Your task to perform on an android device: open app "ColorNote Notepad Notes" (install if not already installed) and enter user name: "unbridled@gmail.com" and password: "regularly" Image 0: 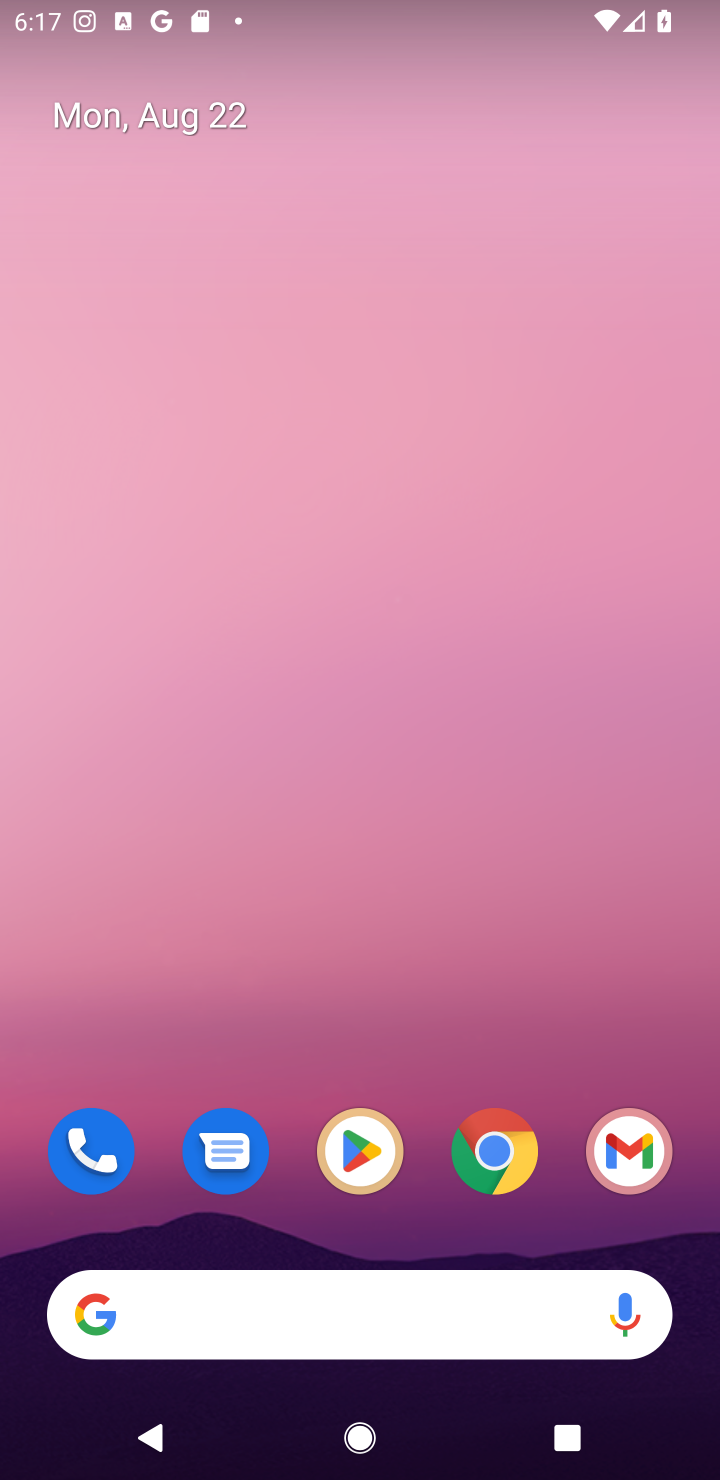
Step 0: click (356, 1152)
Your task to perform on an android device: open app "ColorNote Notepad Notes" (install if not already installed) and enter user name: "unbridled@gmail.com" and password: "regularly" Image 1: 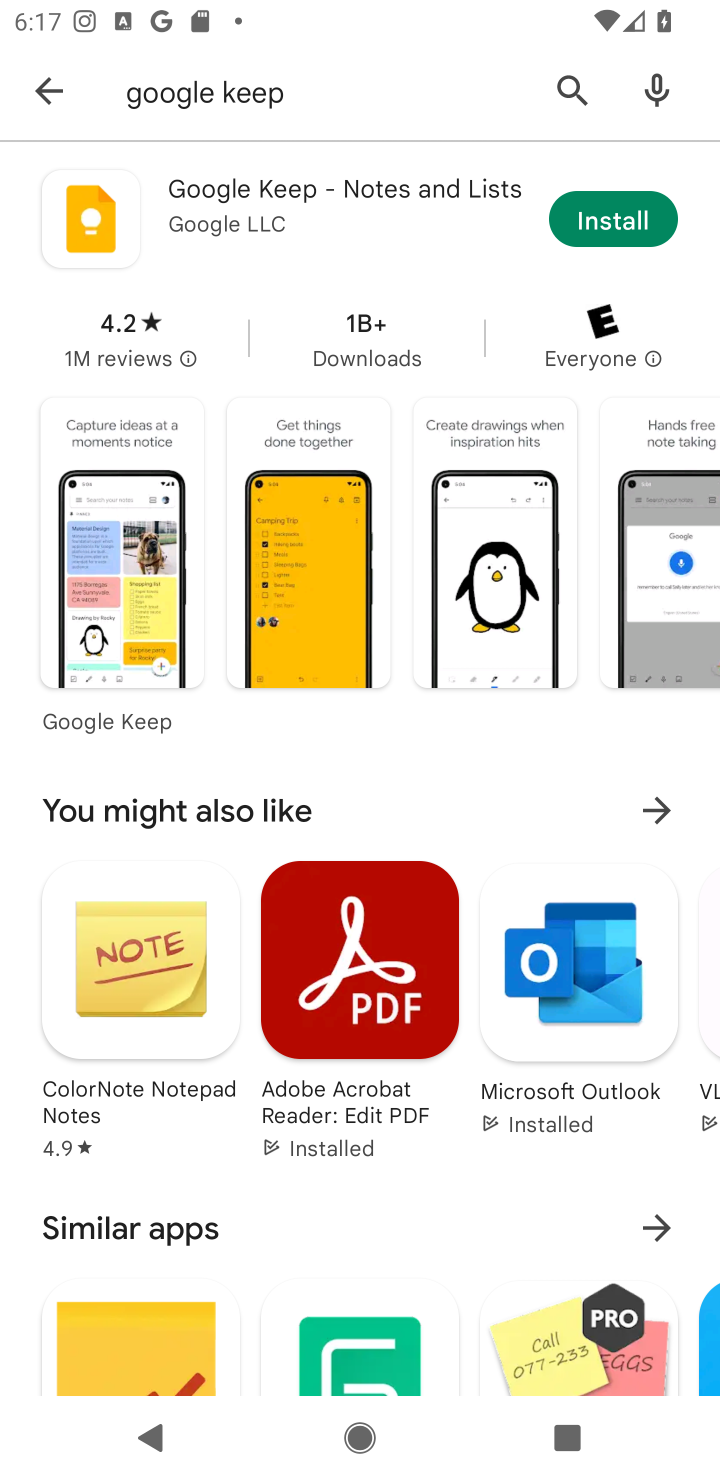
Step 1: click (564, 80)
Your task to perform on an android device: open app "ColorNote Notepad Notes" (install if not already installed) and enter user name: "unbridled@gmail.com" and password: "regularly" Image 2: 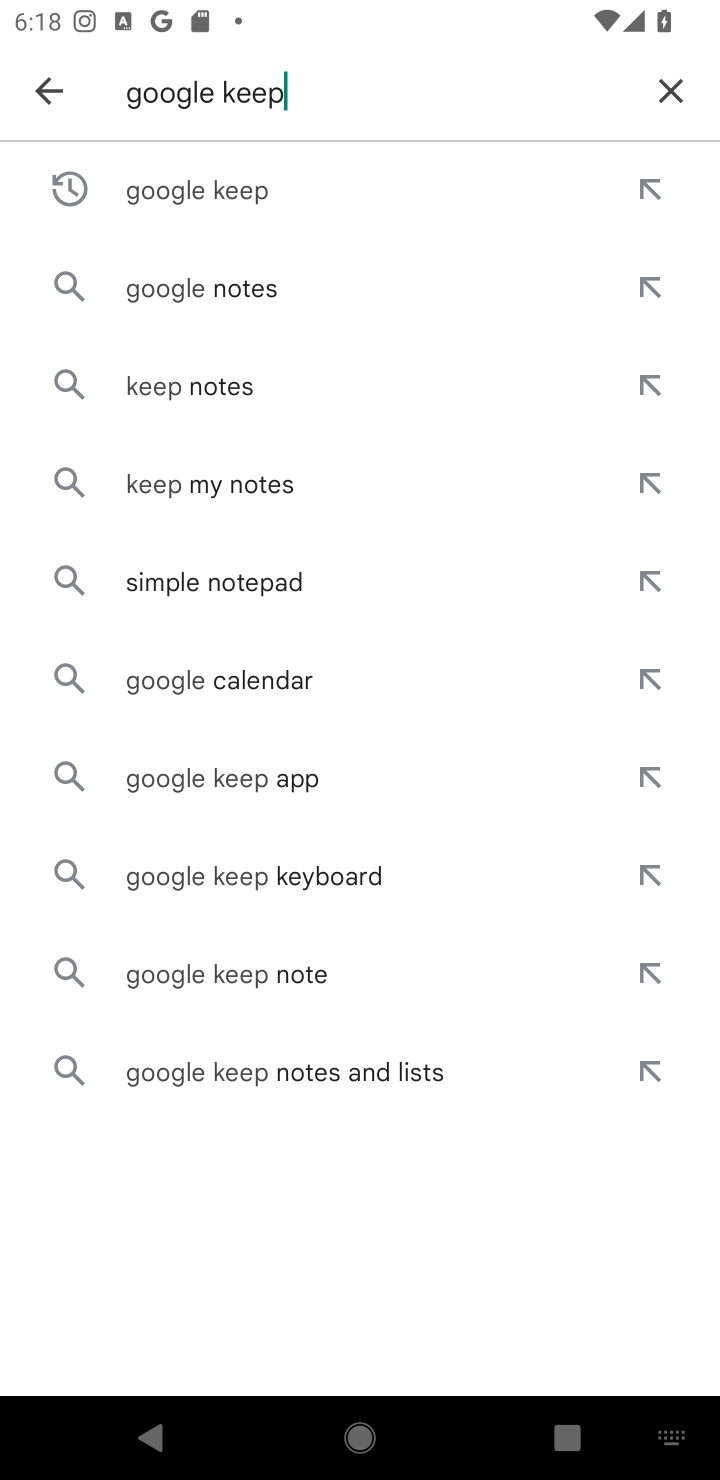
Step 2: click (677, 99)
Your task to perform on an android device: open app "ColorNote Notepad Notes" (install if not already installed) and enter user name: "unbridled@gmail.com" and password: "regularly" Image 3: 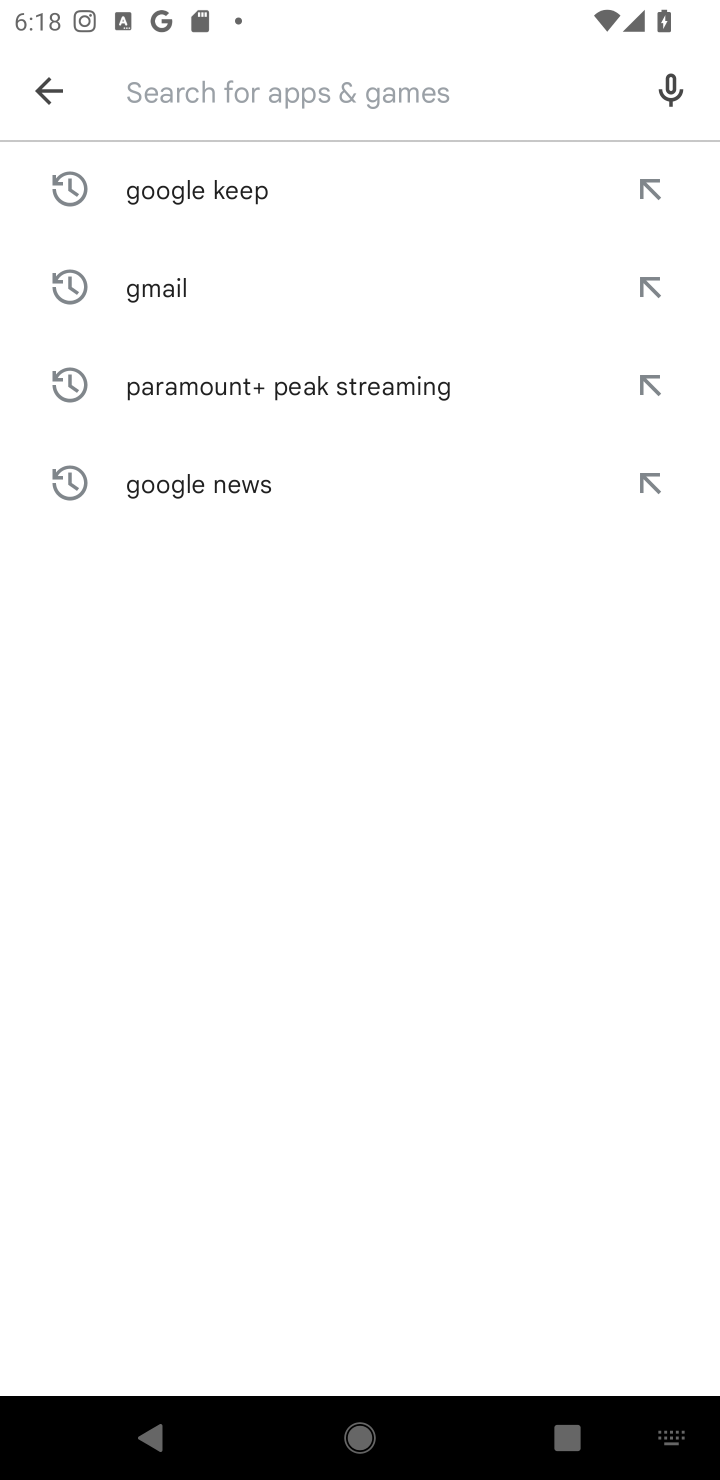
Step 3: type "ColorNote Notepad Notes"
Your task to perform on an android device: open app "ColorNote Notepad Notes" (install if not already installed) and enter user name: "unbridled@gmail.com" and password: "regularly" Image 4: 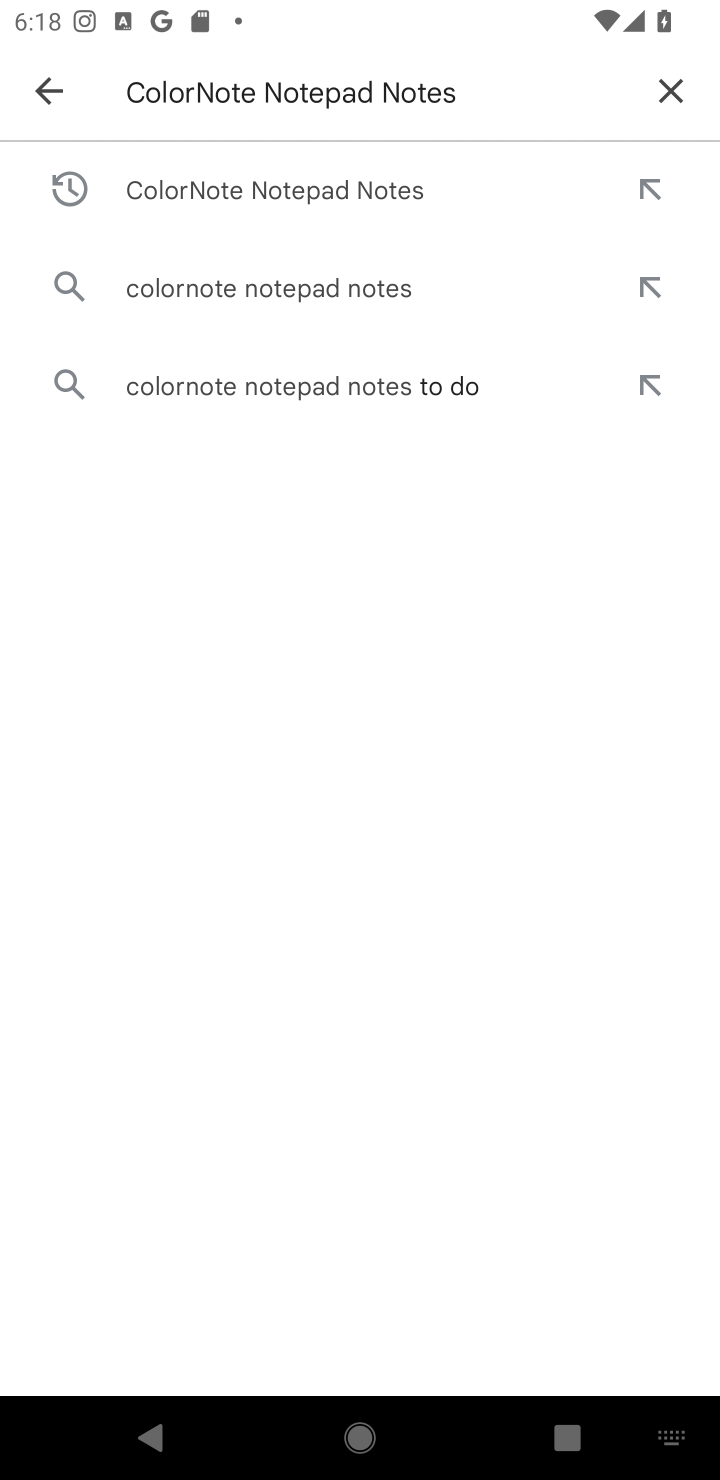
Step 4: click (340, 172)
Your task to perform on an android device: open app "ColorNote Notepad Notes" (install if not already installed) and enter user name: "unbridled@gmail.com" and password: "regularly" Image 5: 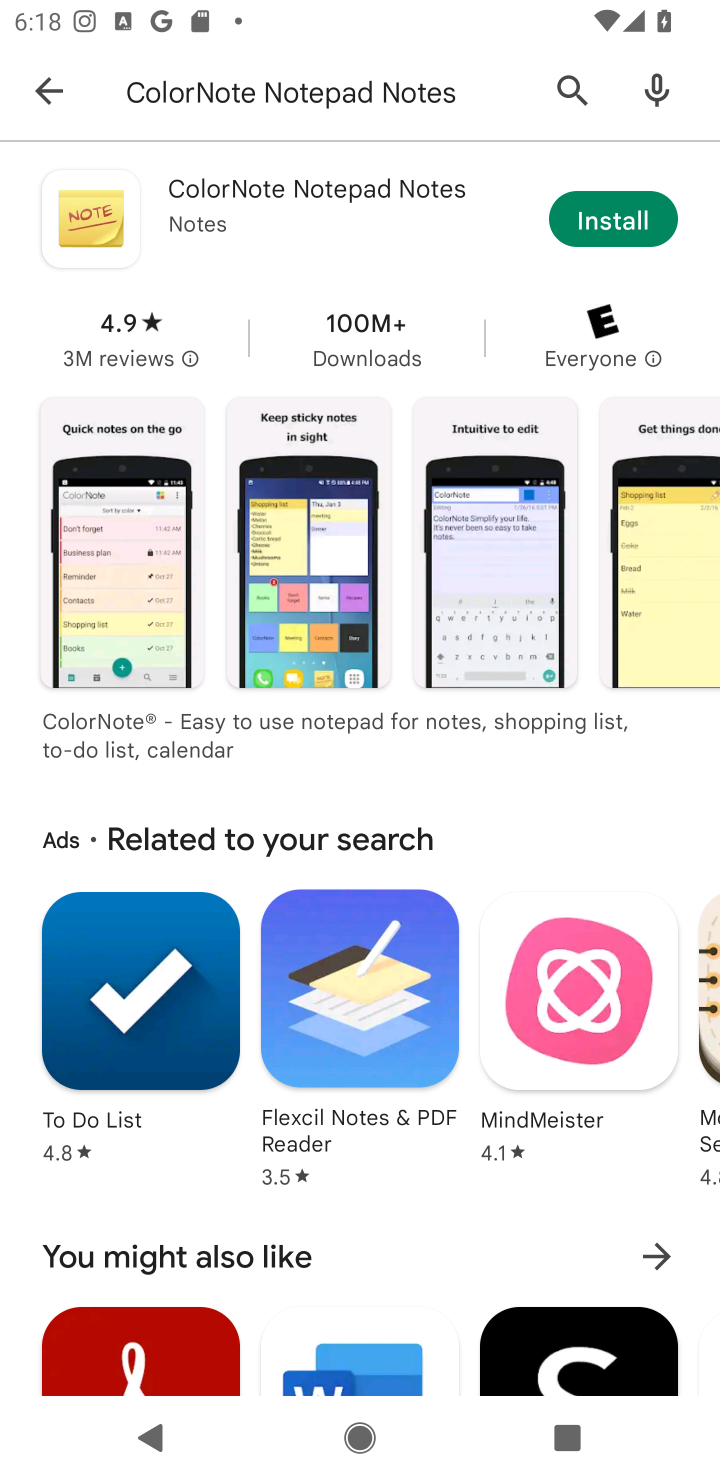
Step 5: click (590, 223)
Your task to perform on an android device: open app "ColorNote Notepad Notes" (install if not already installed) and enter user name: "unbridled@gmail.com" and password: "regularly" Image 6: 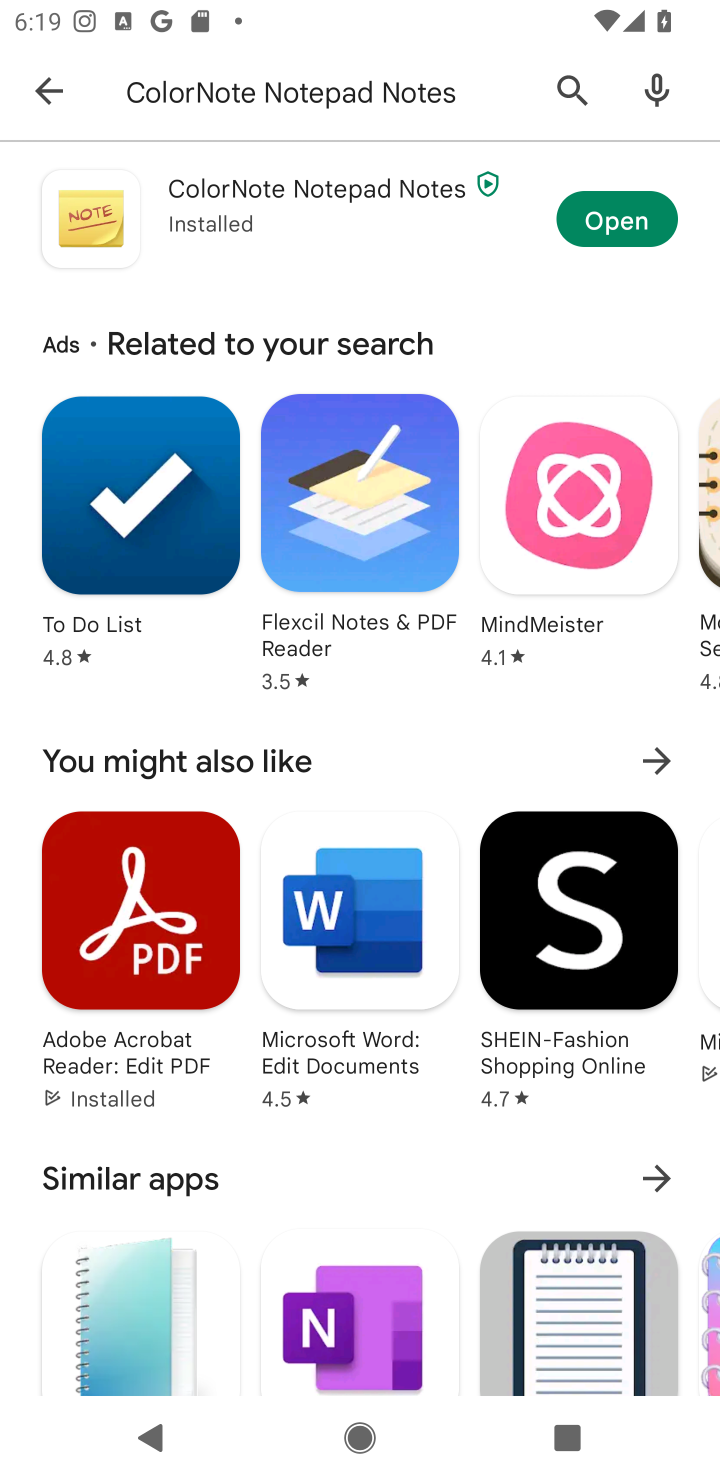
Step 6: click (637, 231)
Your task to perform on an android device: open app "ColorNote Notepad Notes" (install if not already installed) and enter user name: "unbridled@gmail.com" and password: "regularly" Image 7: 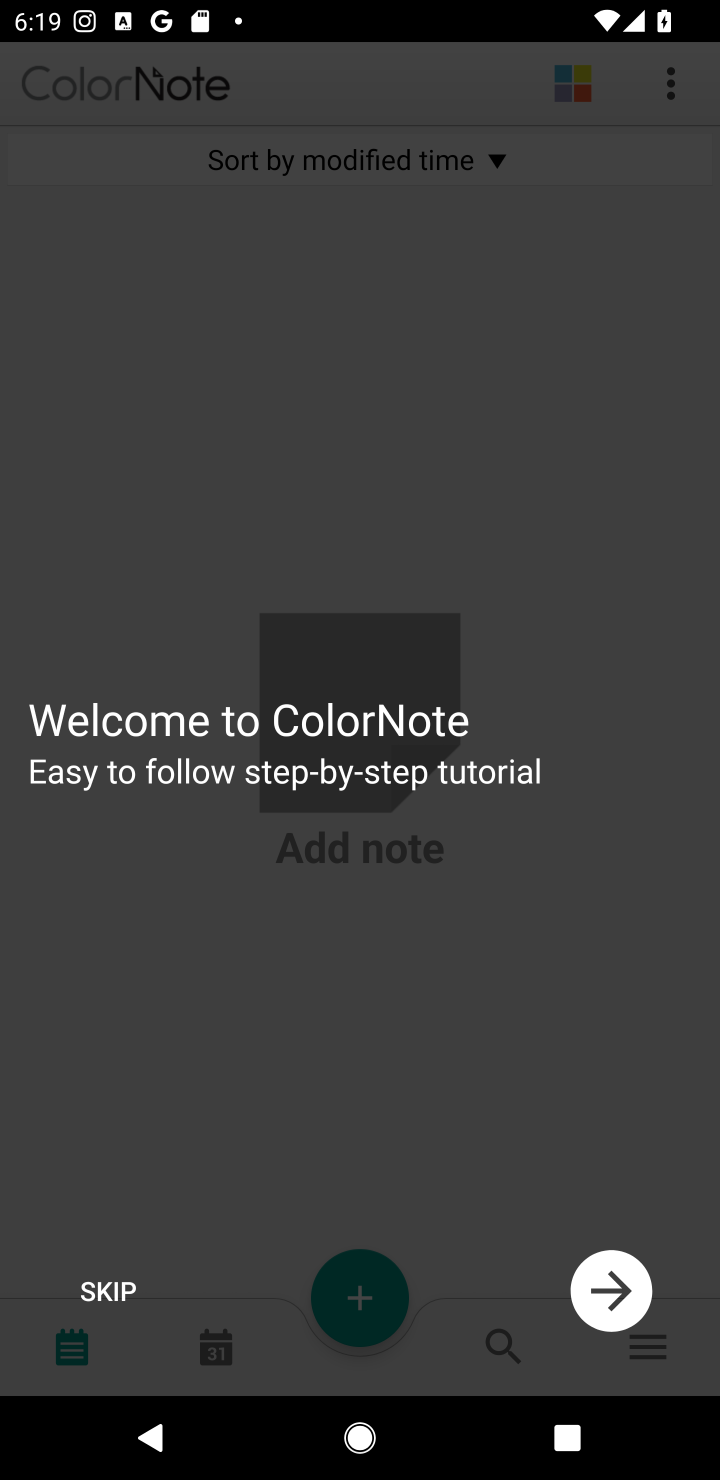
Step 7: click (619, 1272)
Your task to perform on an android device: open app "ColorNote Notepad Notes" (install if not already installed) and enter user name: "unbridled@gmail.com" and password: "regularly" Image 8: 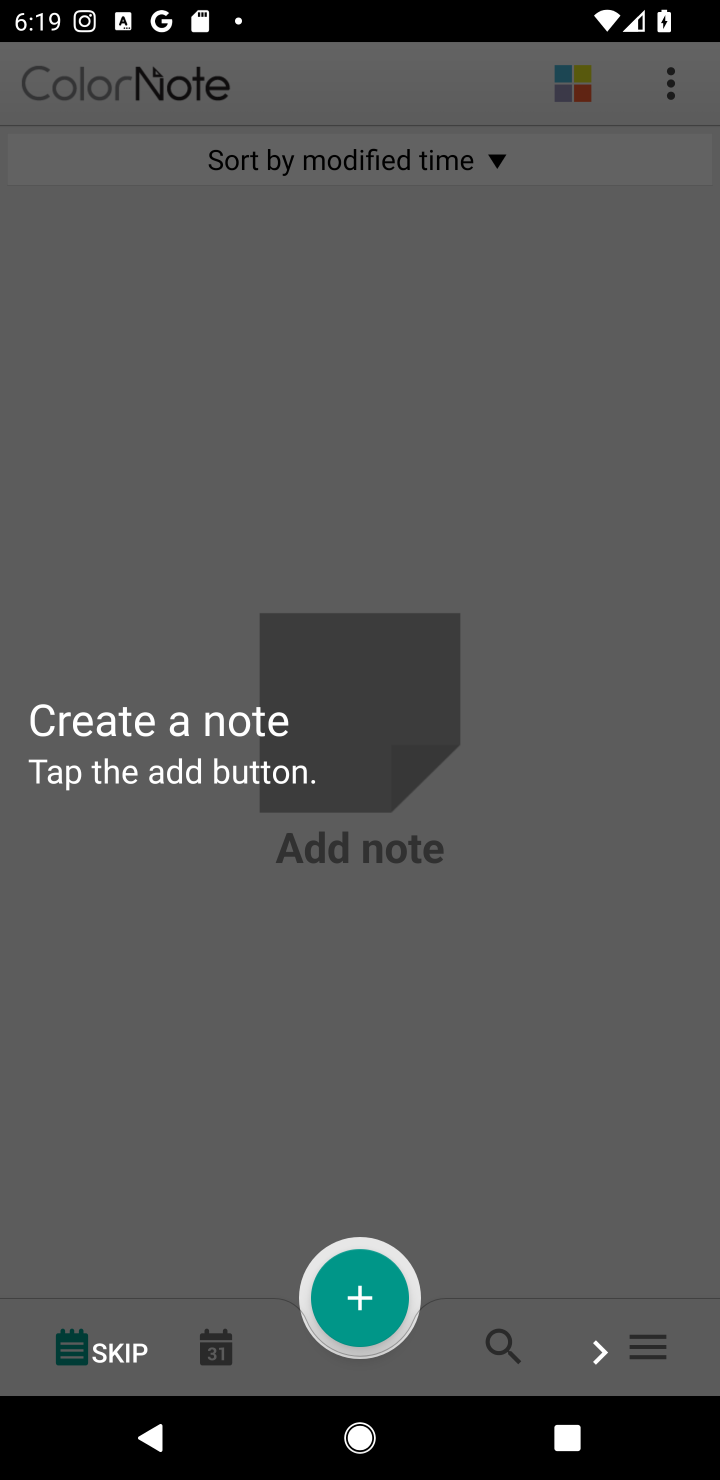
Step 8: click (111, 1345)
Your task to perform on an android device: open app "ColorNote Notepad Notes" (install if not already installed) and enter user name: "unbridled@gmail.com" and password: "regularly" Image 9: 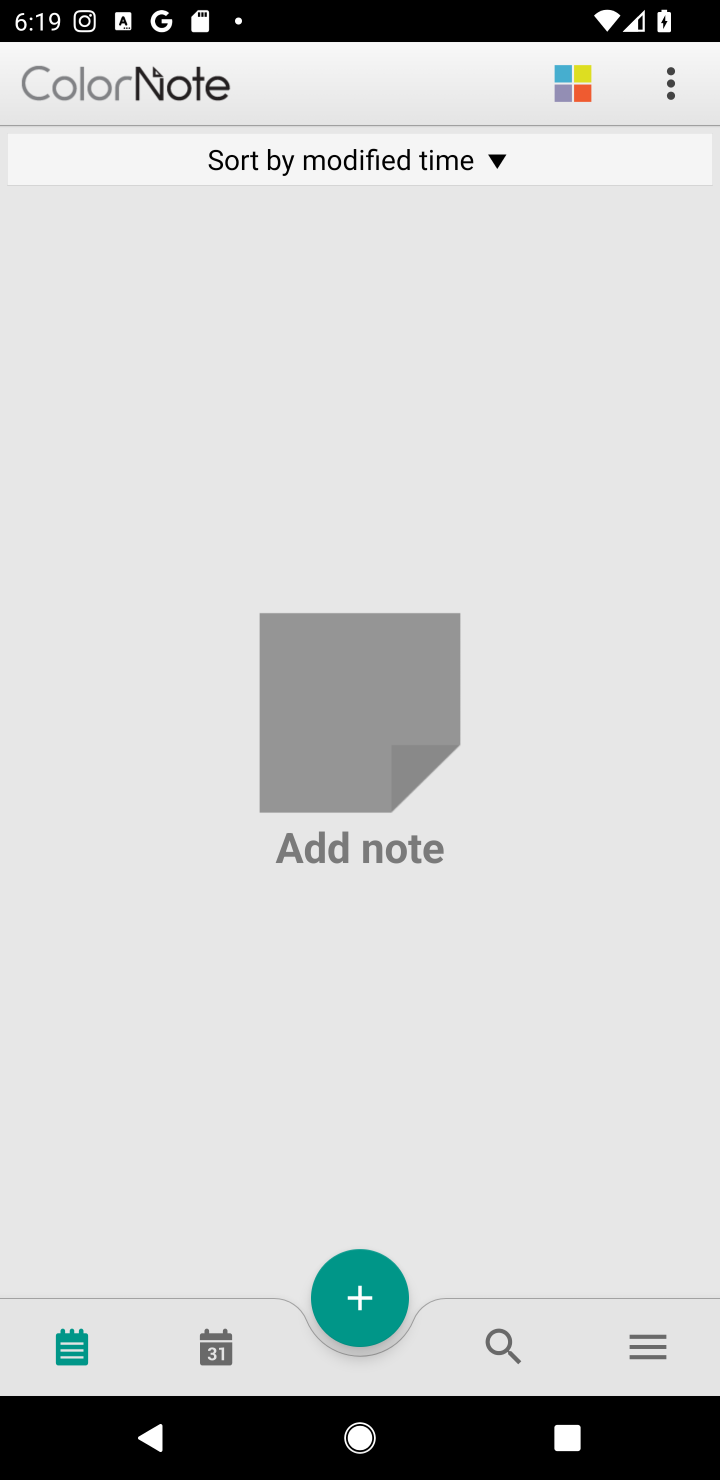
Step 9: task complete